Your task to perform on an android device: Open calendar and show me the first week of next month Image 0: 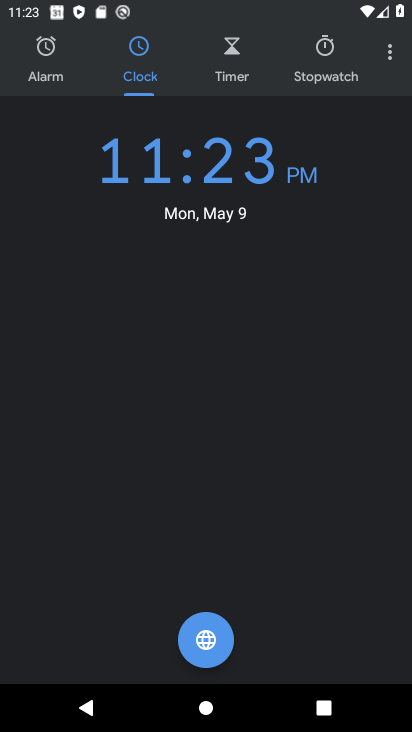
Step 0: press home button
Your task to perform on an android device: Open calendar and show me the first week of next month Image 1: 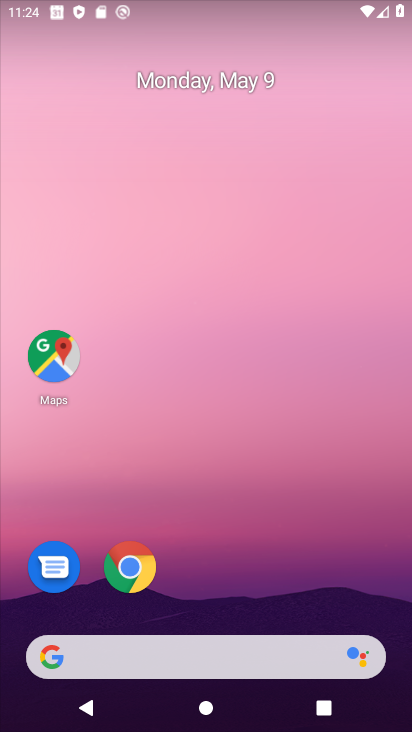
Step 1: drag from (403, 614) to (267, 58)
Your task to perform on an android device: Open calendar and show me the first week of next month Image 2: 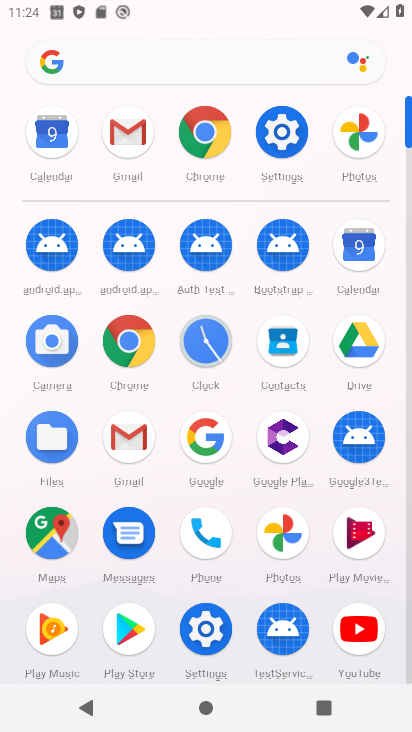
Step 2: click (367, 240)
Your task to perform on an android device: Open calendar and show me the first week of next month Image 3: 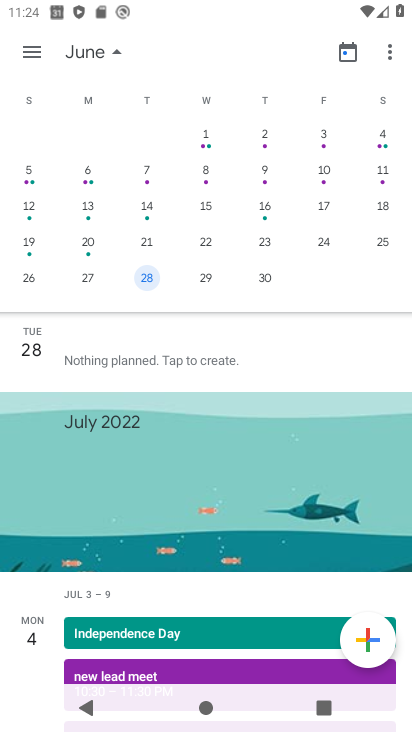
Step 3: drag from (347, 164) to (0, 155)
Your task to perform on an android device: Open calendar and show me the first week of next month Image 4: 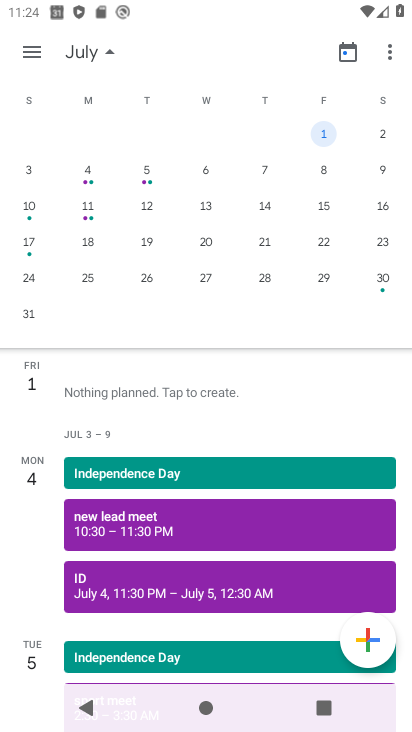
Step 4: click (137, 163)
Your task to perform on an android device: Open calendar and show me the first week of next month Image 5: 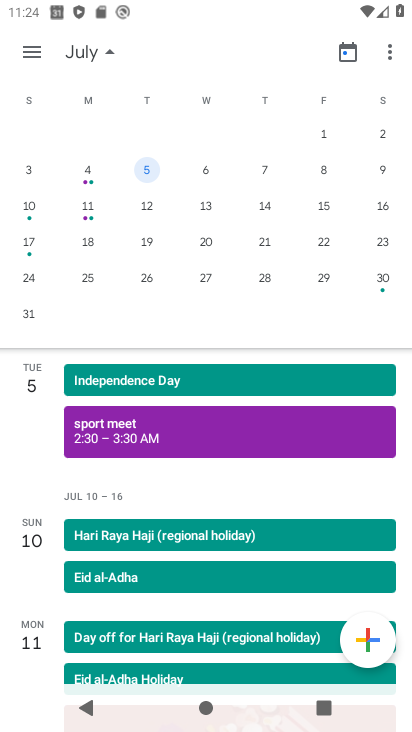
Step 5: task complete